Your task to perform on an android device: set the timer Image 0: 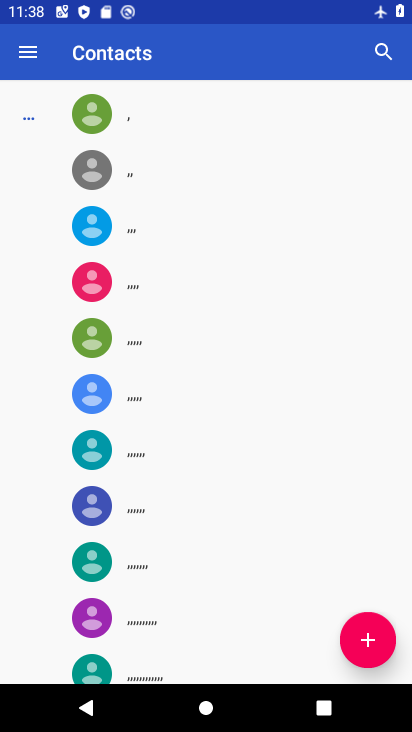
Step 0: press home button
Your task to perform on an android device: set the timer Image 1: 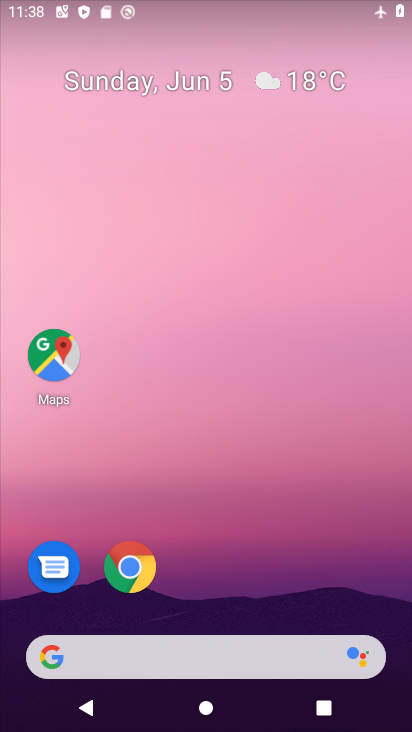
Step 1: drag from (264, 533) to (219, 28)
Your task to perform on an android device: set the timer Image 2: 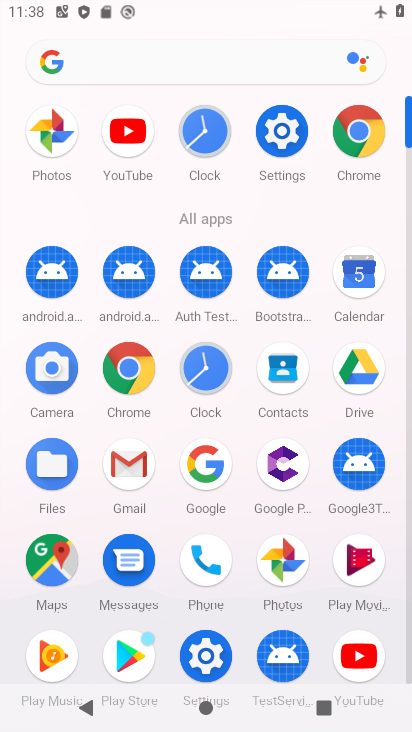
Step 2: click (215, 126)
Your task to perform on an android device: set the timer Image 3: 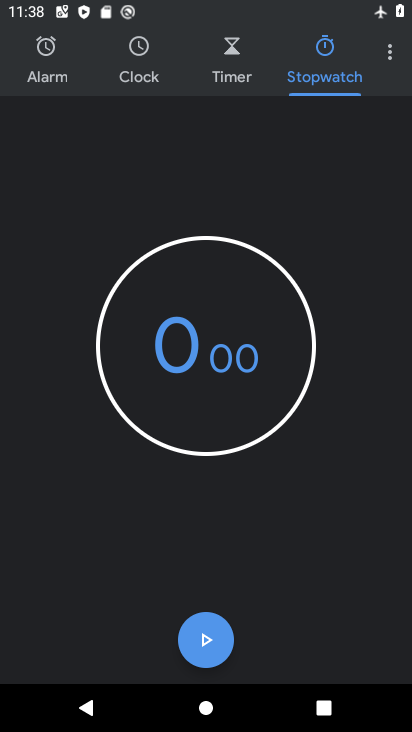
Step 3: click (233, 73)
Your task to perform on an android device: set the timer Image 4: 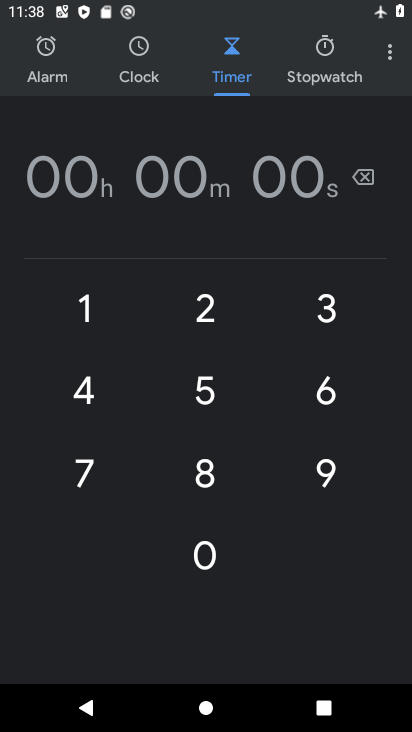
Step 4: click (85, 307)
Your task to perform on an android device: set the timer Image 5: 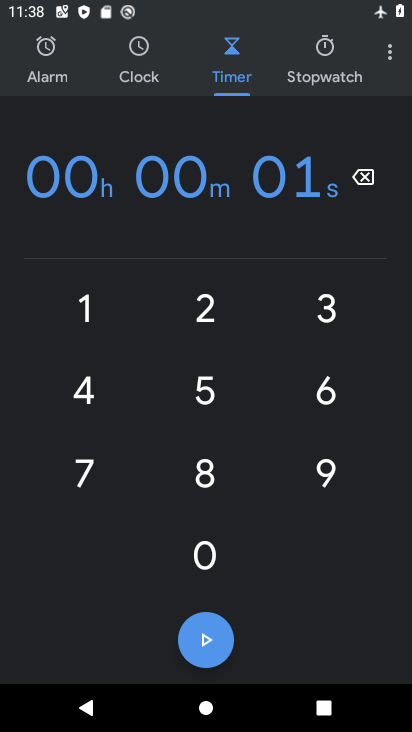
Step 5: click (81, 378)
Your task to perform on an android device: set the timer Image 6: 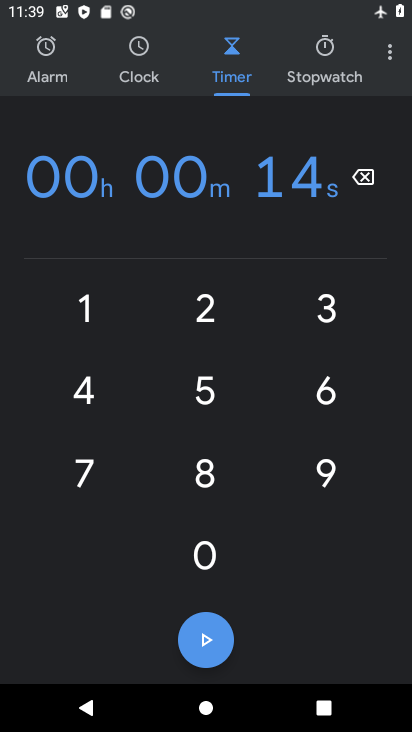
Step 6: task complete